Your task to perform on an android device: Search for pizza restaurants on Maps Image 0: 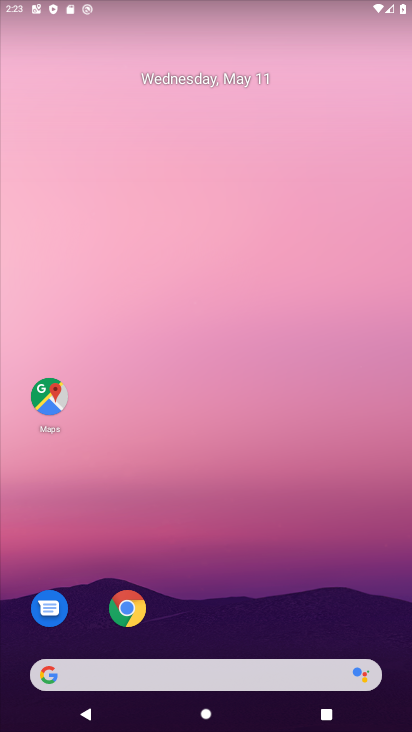
Step 0: click (52, 400)
Your task to perform on an android device: Search for pizza restaurants on Maps Image 1: 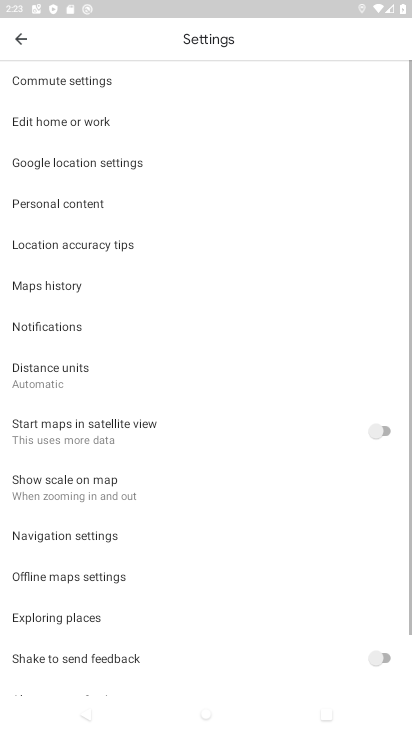
Step 1: click (17, 39)
Your task to perform on an android device: Search for pizza restaurants on Maps Image 2: 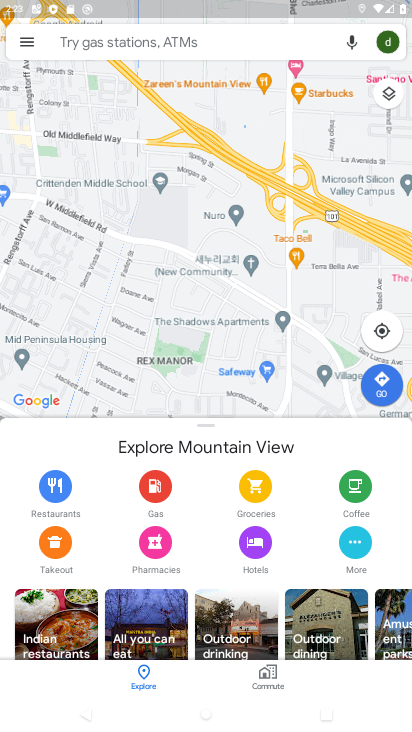
Step 2: click (177, 34)
Your task to perform on an android device: Search for pizza restaurants on Maps Image 3: 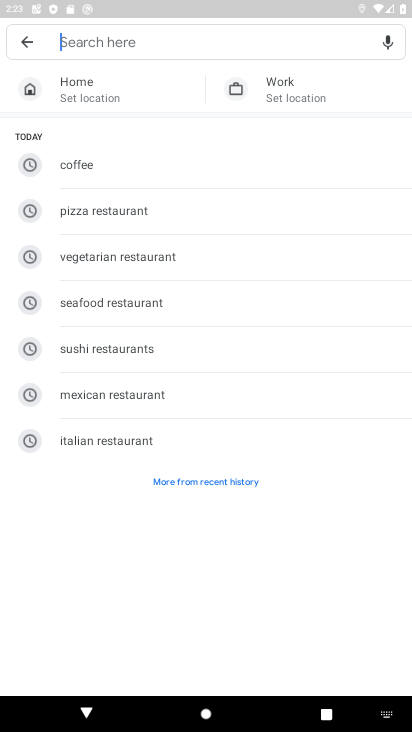
Step 3: click (137, 214)
Your task to perform on an android device: Search for pizza restaurants on Maps Image 4: 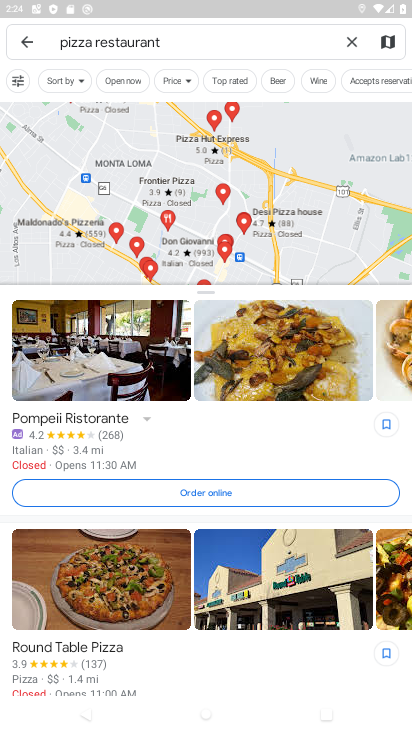
Step 4: task complete